Your task to perform on an android device: allow notifications from all sites in the chrome app Image 0: 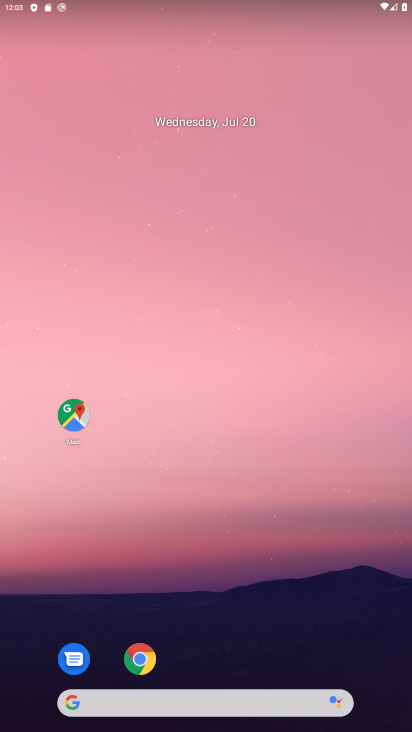
Step 0: drag from (342, 609) to (338, 5)
Your task to perform on an android device: allow notifications from all sites in the chrome app Image 1: 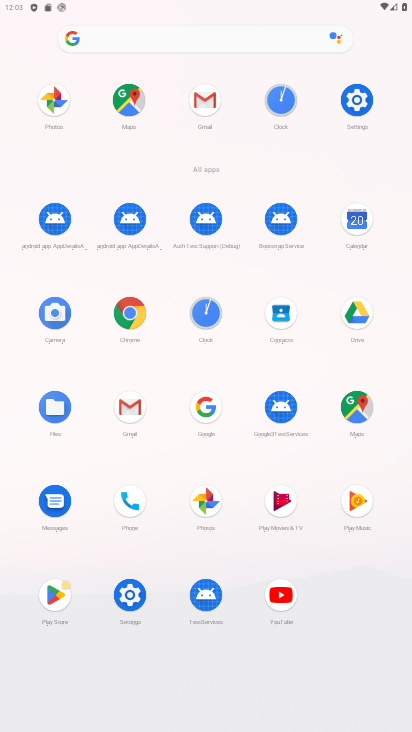
Step 1: click (129, 304)
Your task to perform on an android device: allow notifications from all sites in the chrome app Image 2: 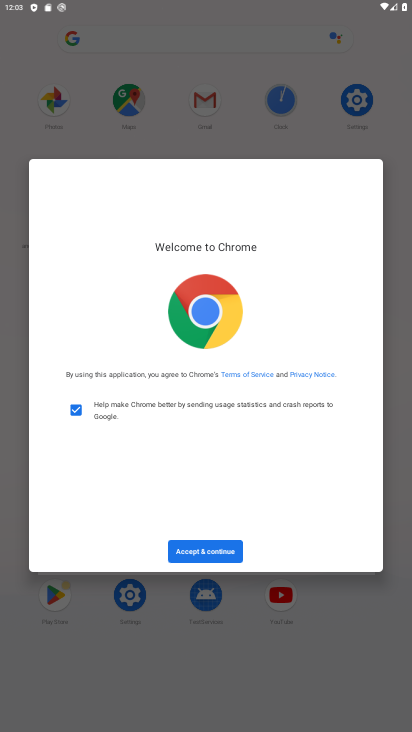
Step 2: click (210, 546)
Your task to perform on an android device: allow notifications from all sites in the chrome app Image 3: 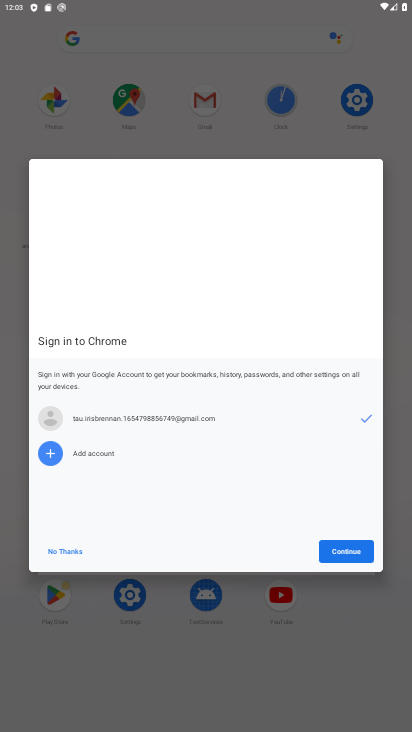
Step 3: click (346, 554)
Your task to perform on an android device: allow notifications from all sites in the chrome app Image 4: 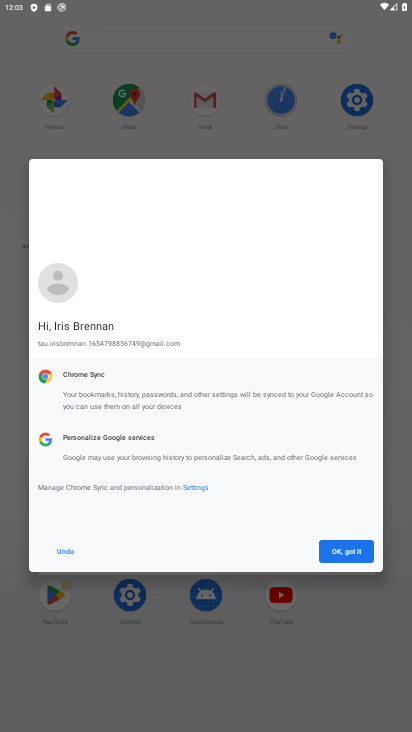
Step 4: click (346, 554)
Your task to perform on an android device: allow notifications from all sites in the chrome app Image 5: 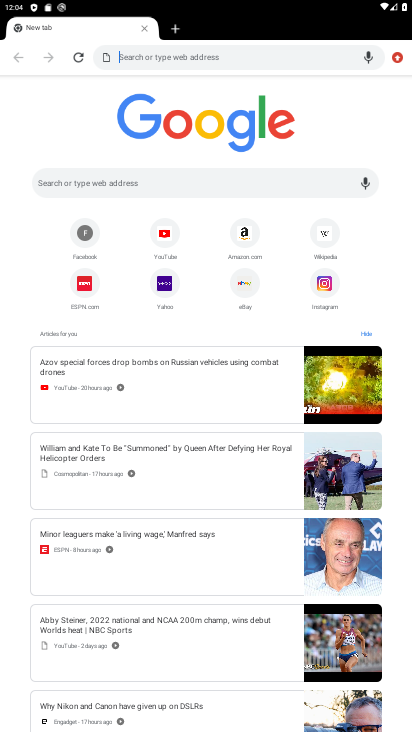
Step 5: click (399, 56)
Your task to perform on an android device: allow notifications from all sites in the chrome app Image 6: 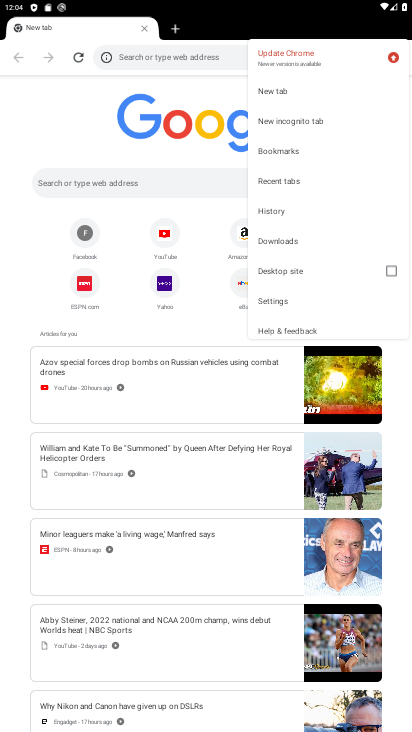
Step 6: click (273, 300)
Your task to perform on an android device: allow notifications from all sites in the chrome app Image 7: 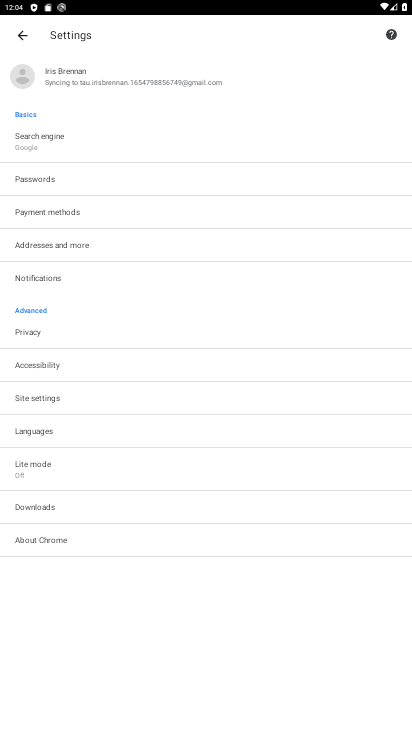
Step 7: click (46, 285)
Your task to perform on an android device: allow notifications from all sites in the chrome app Image 8: 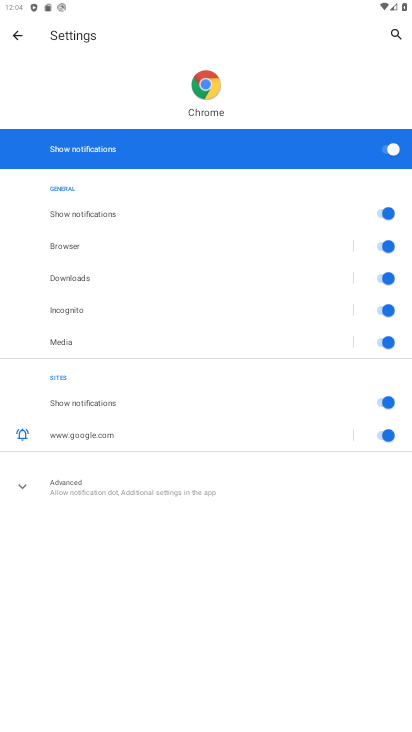
Step 8: task complete